Your task to perform on an android device: Show me recent news Image 0: 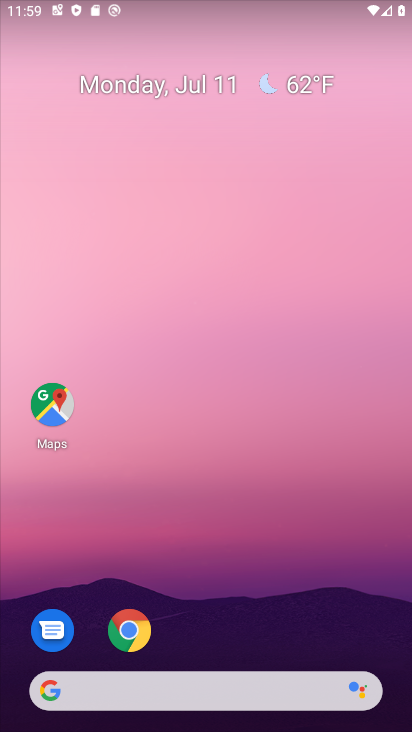
Step 0: drag from (220, 691) to (261, 6)
Your task to perform on an android device: Show me recent news Image 1: 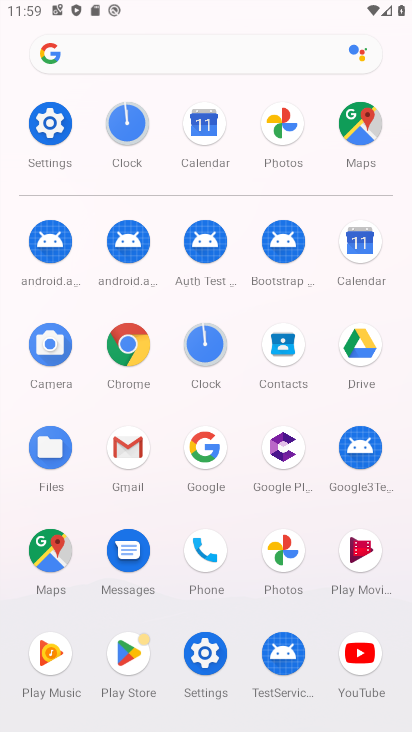
Step 1: click (127, 348)
Your task to perform on an android device: Show me recent news Image 2: 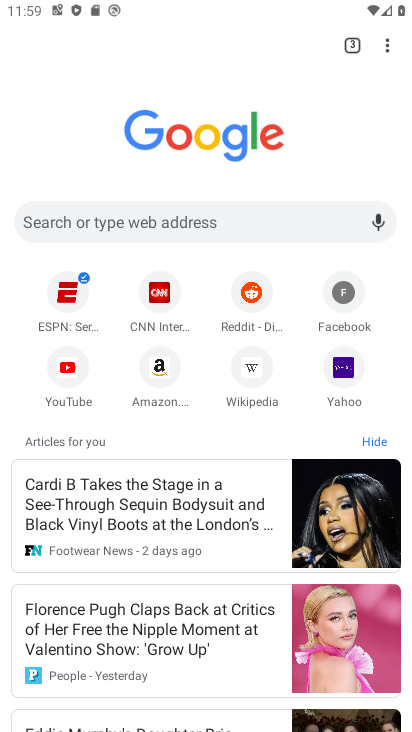
Step 2: click (194, 227)
Your task to perform on an android device: Show me recent news Image 3: 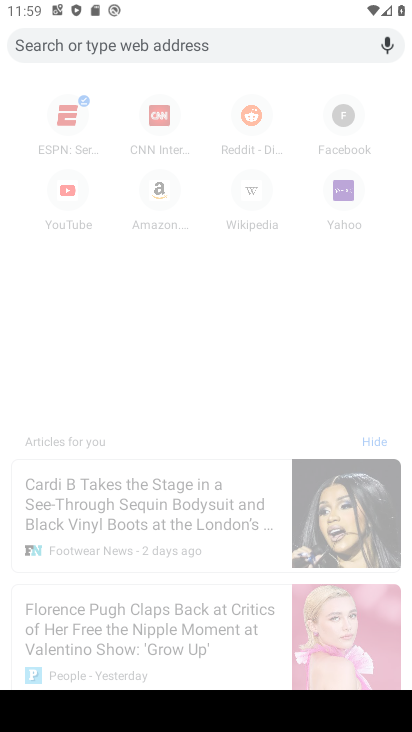
Step 3: type "recent news"
Your task to perform on an android device: Show me recent news Image 4: 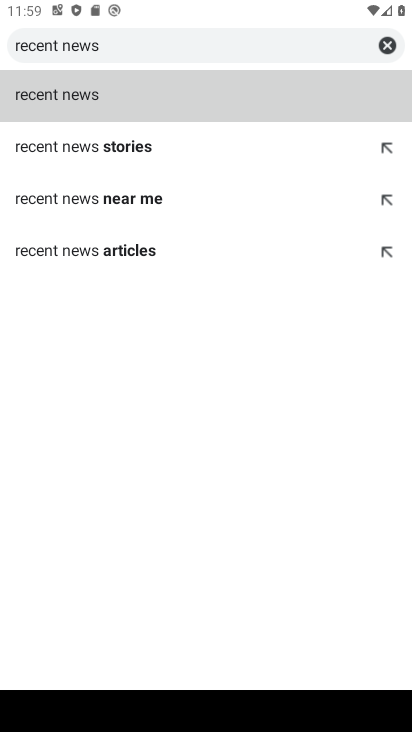
Step 4: click (51, 101)
Your task to perform on an android device: Show me recent news Image 5: 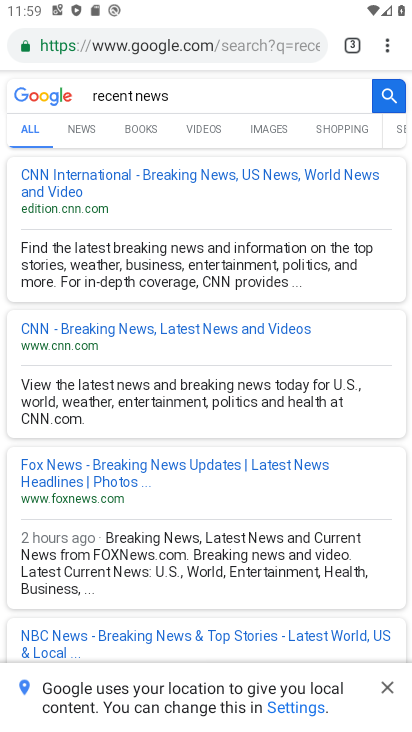
Step 5: task complete